Your task to perform on an android device: View the shopping cart on ebay.com. Search for "razer kraken" on ebay.com, select the first entry, and add it to the cart. Image 0: 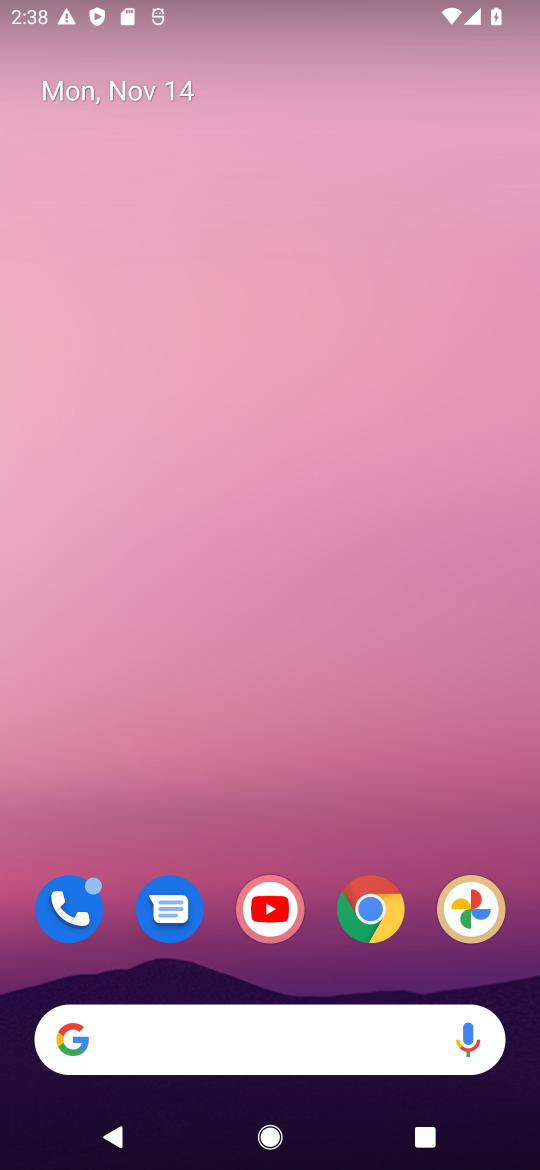
Step 0: drag from (330, 977) to (217, 79)
Your task to perform on an android device: View the shopping cart on ebay.com. Search for "razer kraken" on ebay.com, select the first entry, and add it to the cart. Image 1: 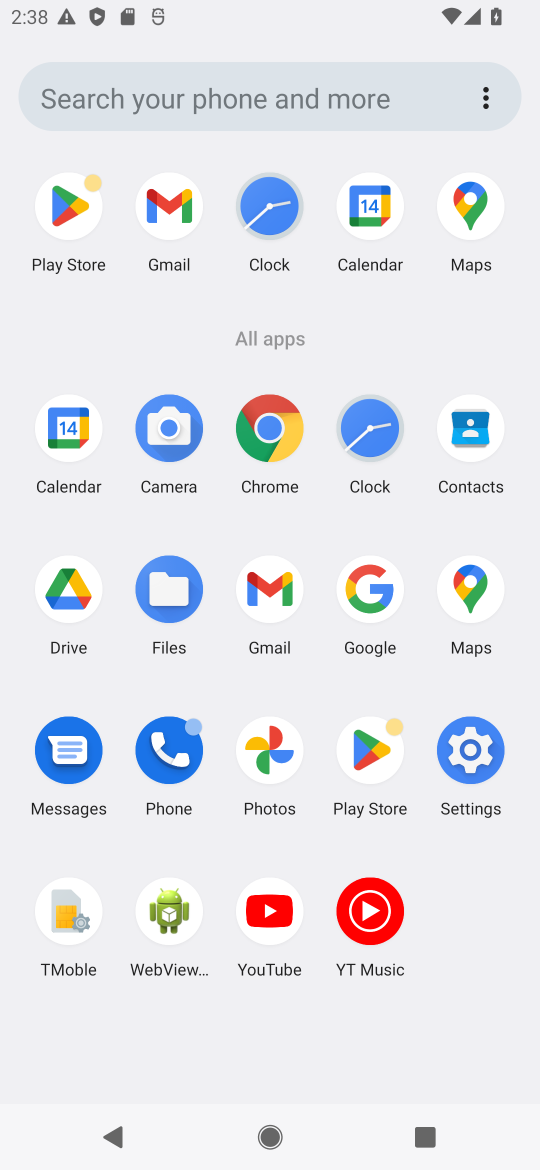
Step 1: click (265, 431)
Your task to perform on an android device: View the shopping cart on ebay.com. Search for "razer kraken" on ebay.com, select the first entry, and add it to the cart. Image 2: 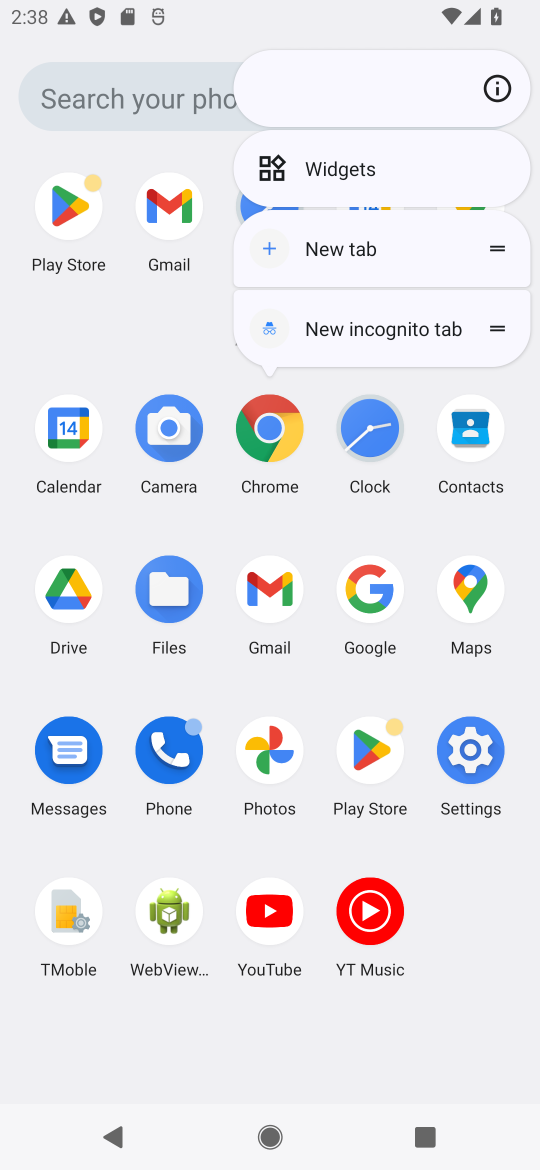
Step 2: click (266, 434)
Your task to perform on an android device: View the shopping cart on ebay.com. Search for "razer kraken" on ebay.com, select the first entry, and add it to the cart. Image 3: 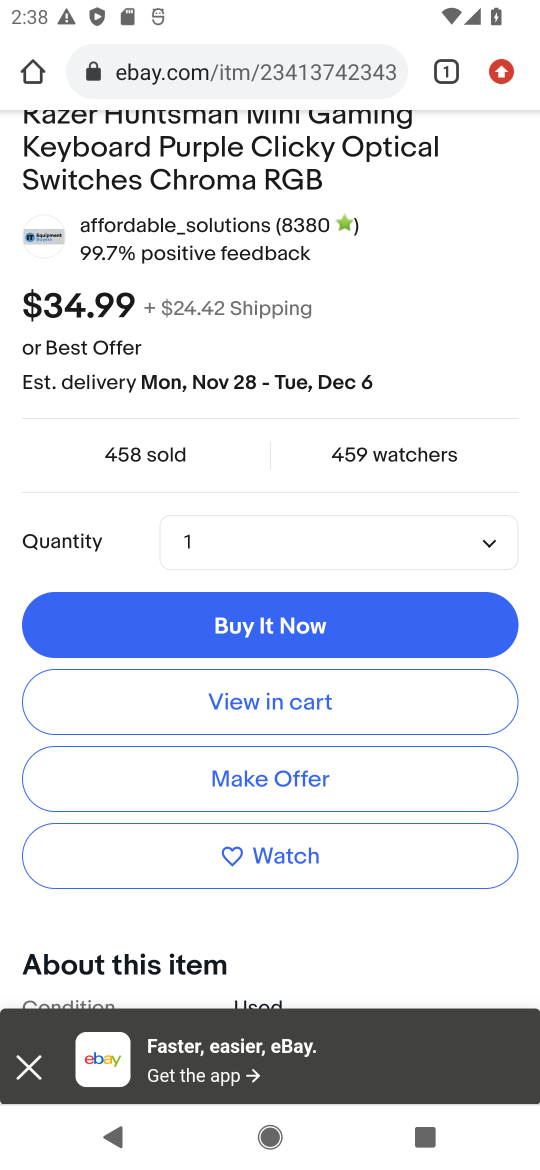
Step 3: click (300, 70)
Your task to perform on an android device: View the shopping cart on ebay.com. Search for "razer kraken" on ebay.com, select the first entry, and add it to the cart. Image 4: 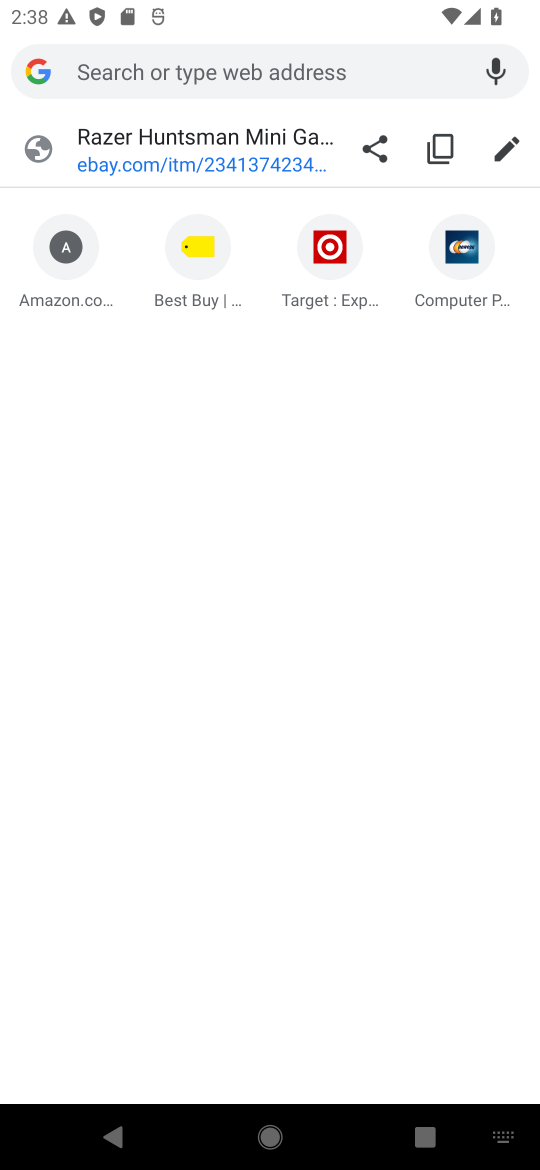
Step 4: type "ebay.com"
Your task to perform on an android device: View the shopping cart on ebay.com. Search for "razer kraken" on ebay.com, select the first entry, and add it to the cart. Image 5: 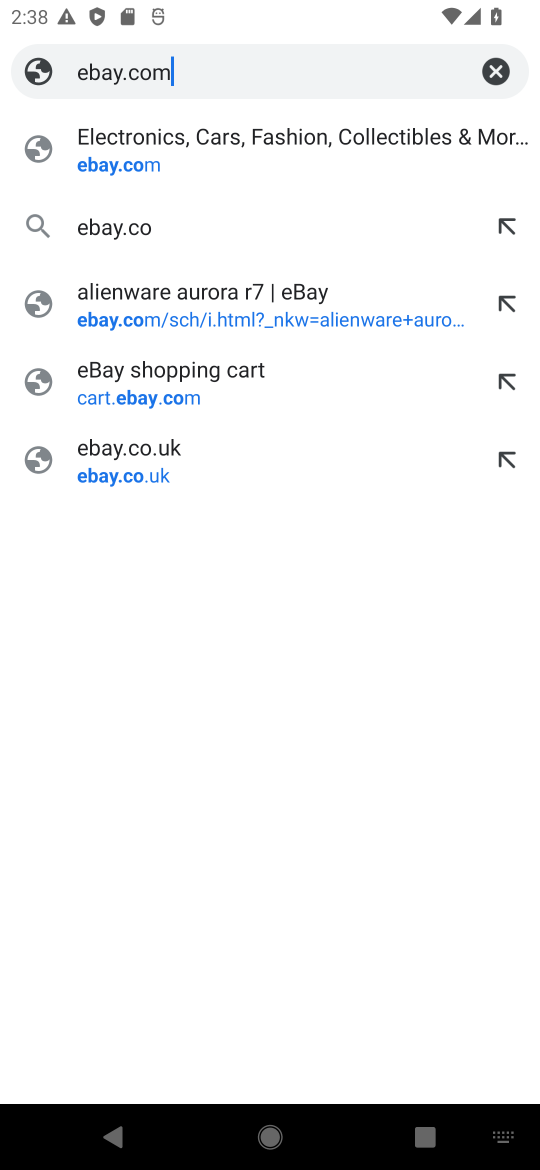
Step 5: press enter
Your task to perform on an android device: View the shopping cart on ebay.com. Search for "razer kraken" on ebay.com, select the first entry, and add it to the cart. Image 6: 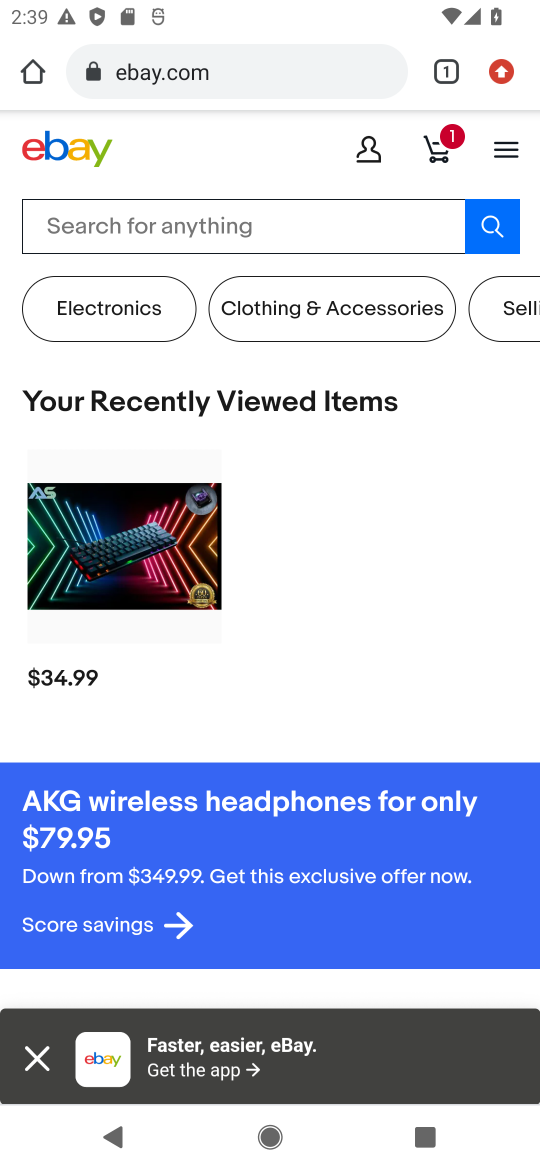
Step 6: click (442, 152)
Your task to perform on an android device: View the shopping cart on ebay.com. Search for "razer kraken" on ebay.com, select the first entry, and add it to the cart. Image 7: 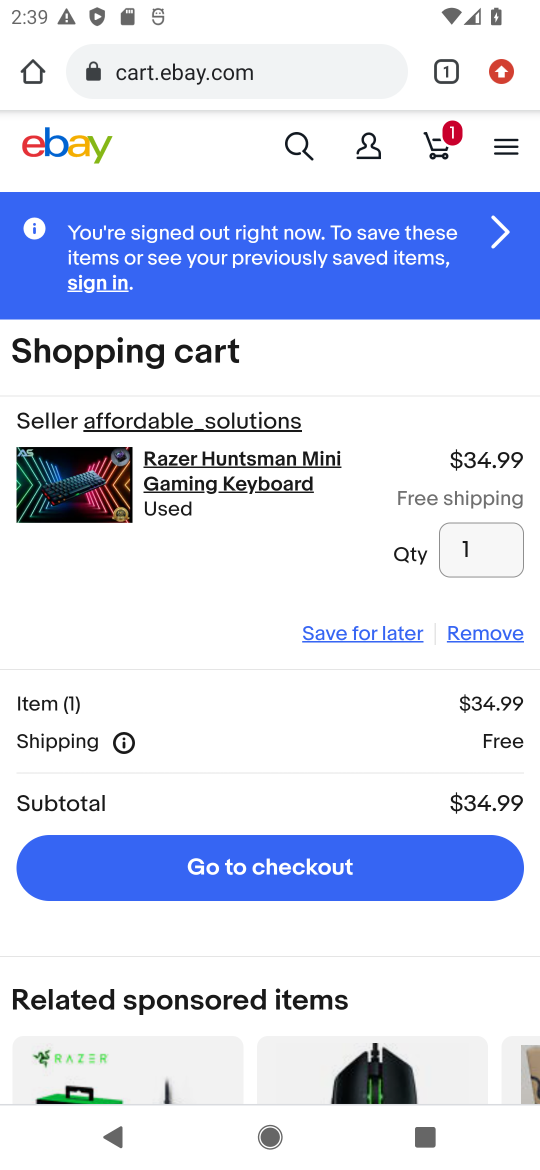
Step 7: click (304, 142)
Your task to perform on an android device: View the shopping cart on ebay.com. Search for "razer kraken" on ebay.com, select the first entry, and add it to the cart. Image 8: 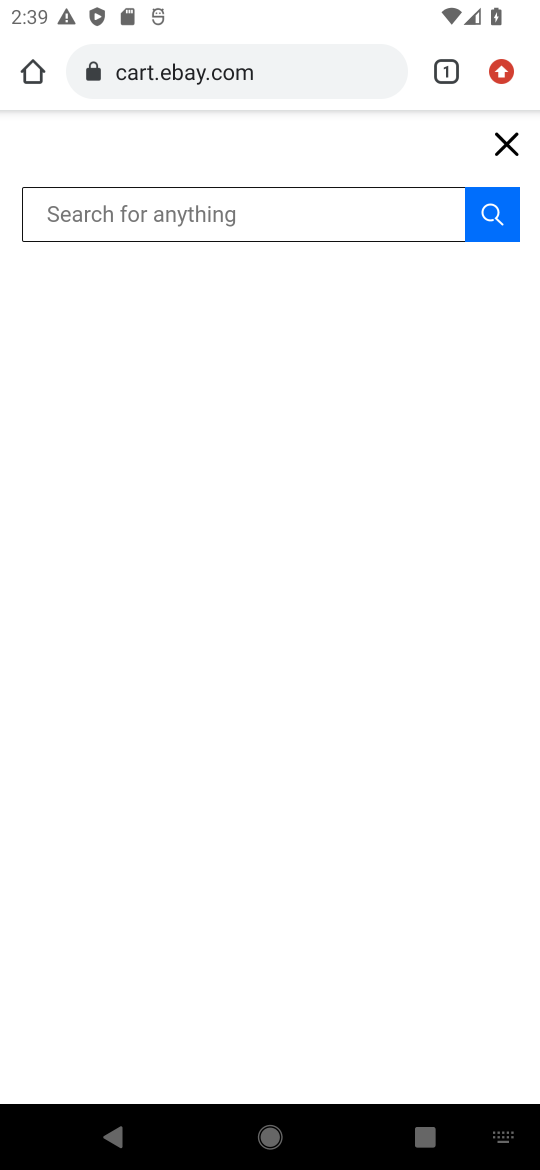
Step 8: type "razer kraken"
Your task to perform on an android device: View the shopping cart on ebay.com. Search for "razer kraken" on ebay.com, select the first entry, and add it to the cart. Image 9: 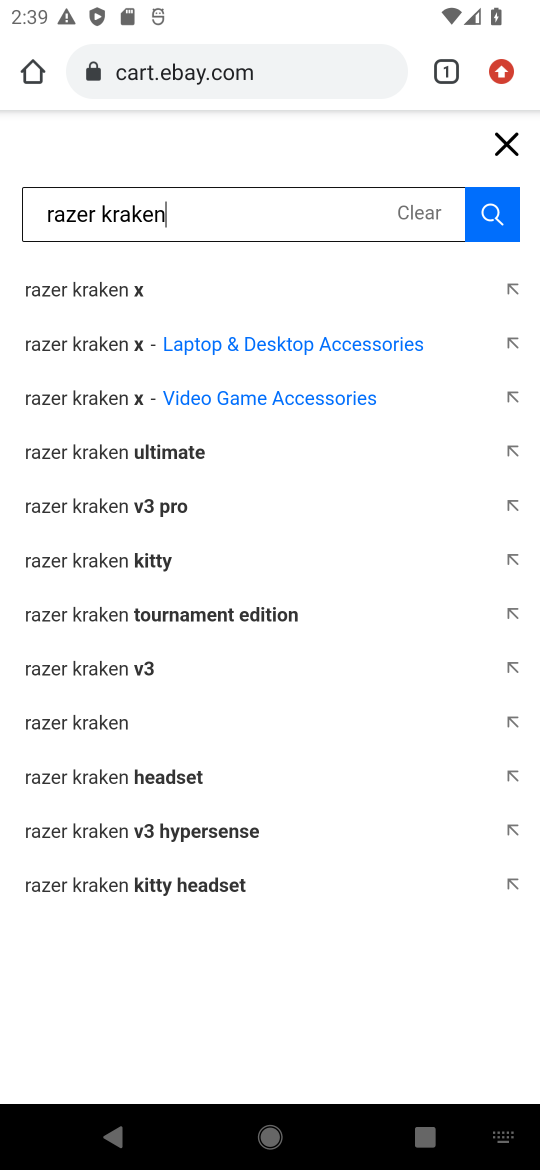
Step 9: press enter
Your task to perform on an android device: View the shopping cart on ebay.com. Search for "razer kraken" on ebay.com, select the first entry, and add it to the cart. Image 10: 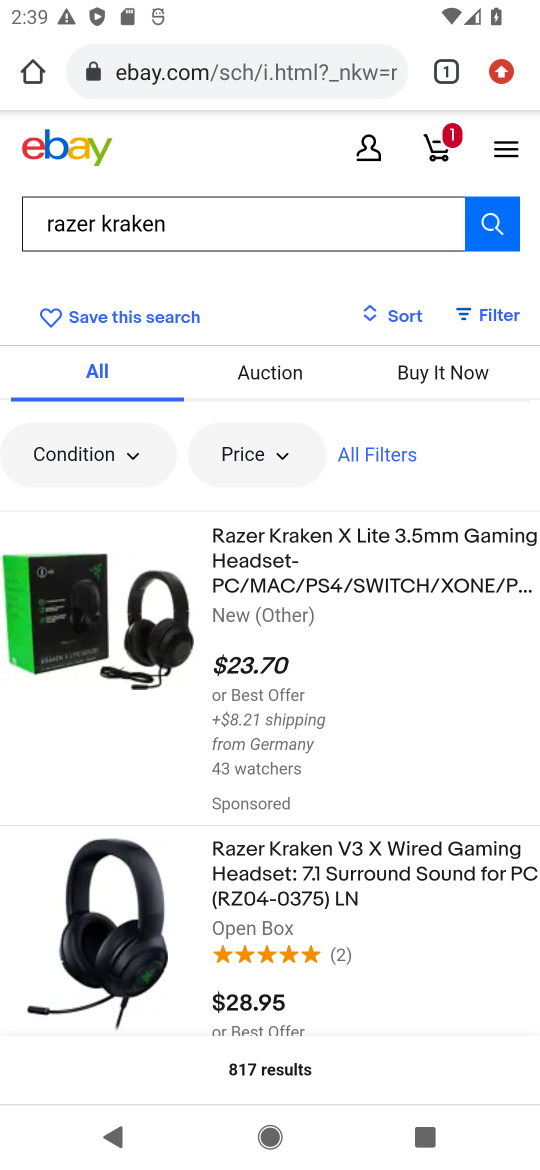
Step 10: click (252, 583)
Your task to perform on an android device: View the shopping cart on ebay.com. Search for "razer kraken" on ebay.com, select the first entry, and add it to the cart. Image 11: 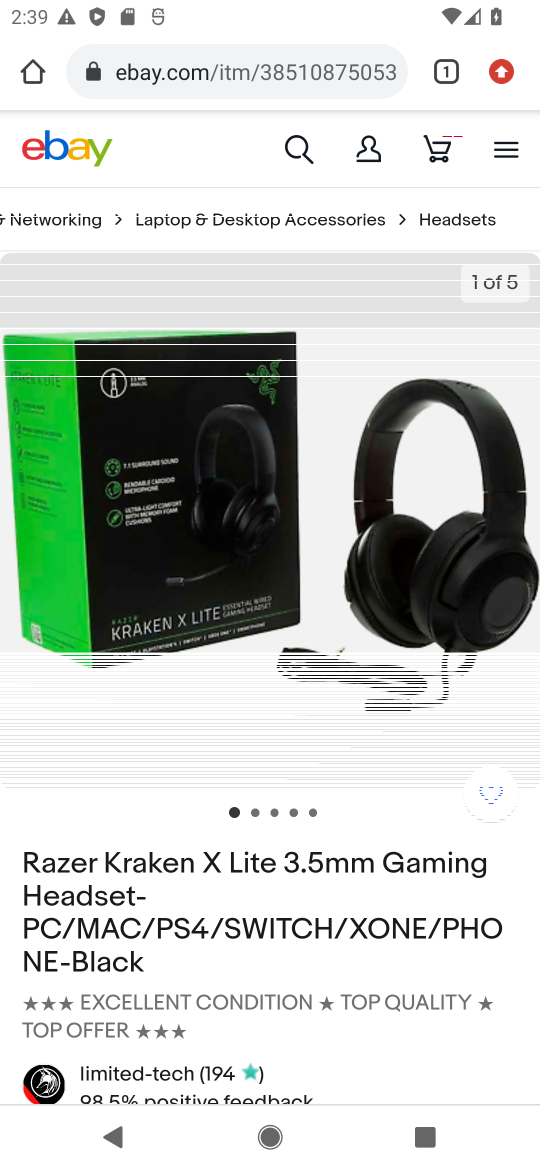
Step 11: drag from (352, 874) to (404, 122)
Your task to perform on an android device: View the shopping cart on ebay.com. Search for "razer kraken" on ebay.com, select the first entry, and add it to the cart. Image 12: 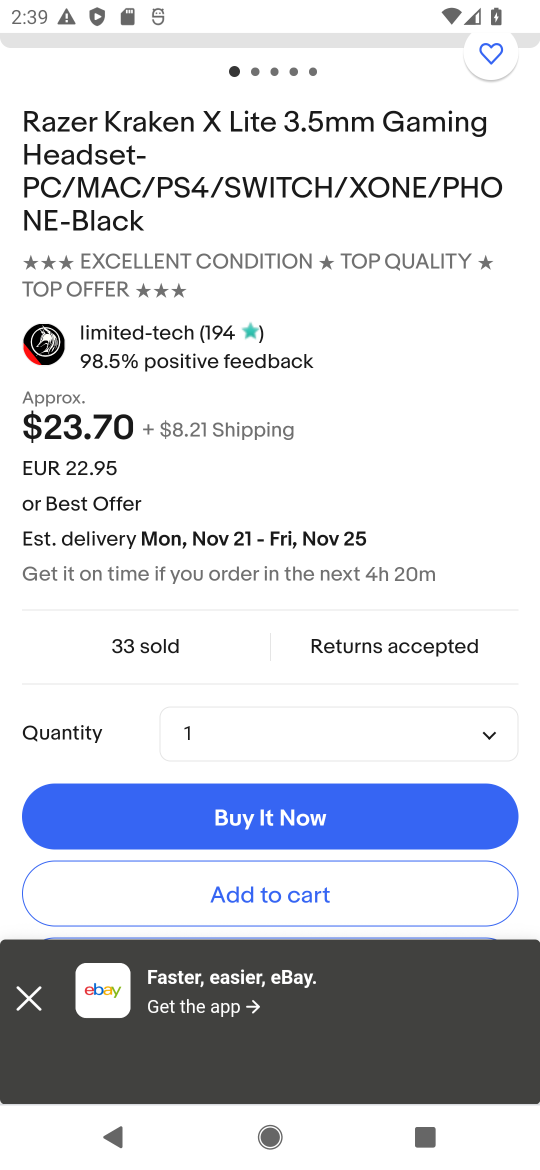
Step 12: click (327, 890)
Your task to perform on an android device: View the shopping cart on ebay.com. Search for "razer kraken" on ebay.com, select the first entry, and add it to the cart. Image 13: 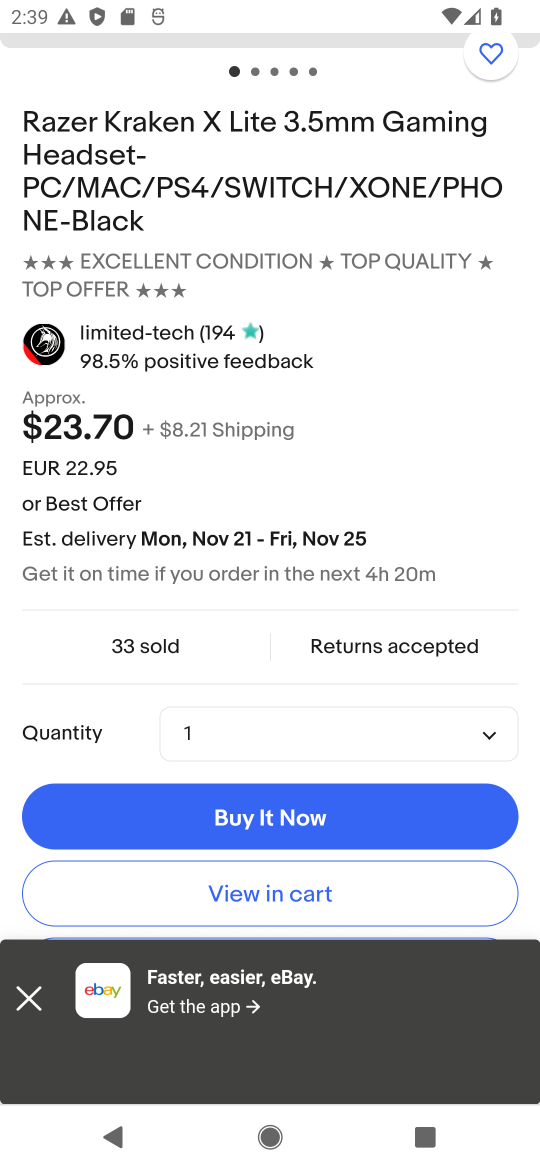
Step 13: task complete